Your task to perform on an android device: manage bookmarks in the chrome app Image 0: 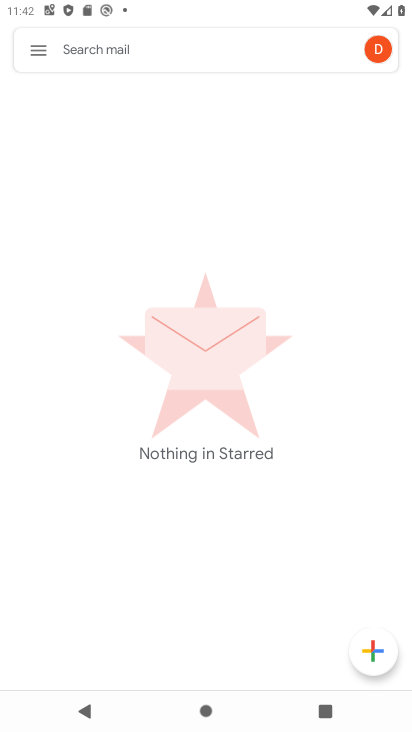
Step 0: click (34, 46)
Your task to perform on an android device: manage bookmarks in the chrome app Image 1: 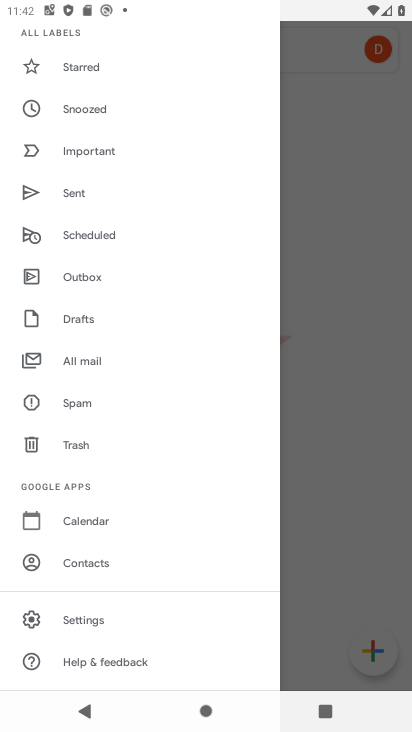
Step 1: press home button
Your task to perform on an android device: manage bookmarks in the chrome app Image 2: 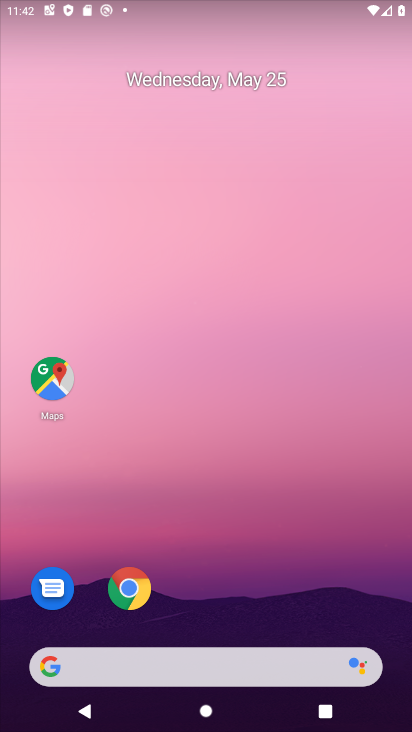
Step 2: drag from (231, 575) to (237, 92)
Your task to perform on an android device: manage bookmarks in the chrome app Image 3: 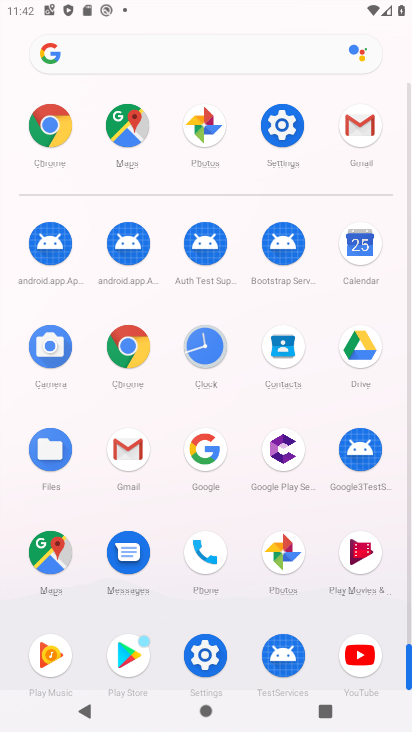
Step 3: click (124, 337)
Your task to perform on an android device: manage bookmarks in the chrome app Image 4: 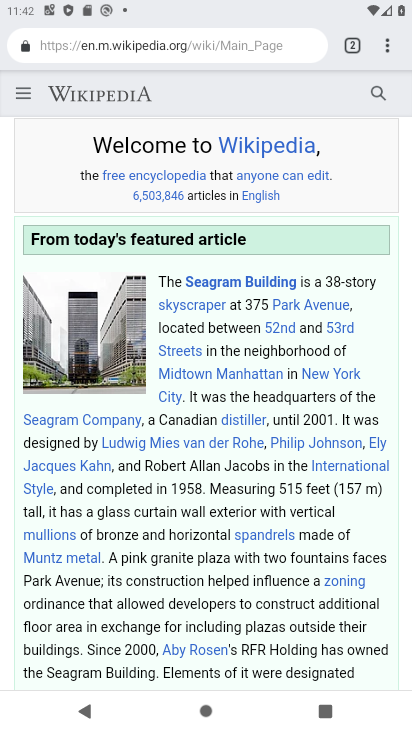
Step 4: task complete